Your task to perform on an android device: add a label to a message in the gmail app Image 0: 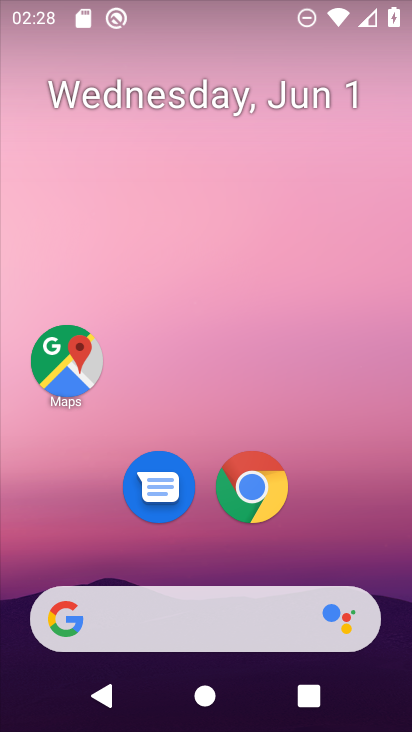
Step 0: drag from (287, 540) to (333, 94)
Your task to perform on an android device: add a label to a message in the gmail app Image 1: 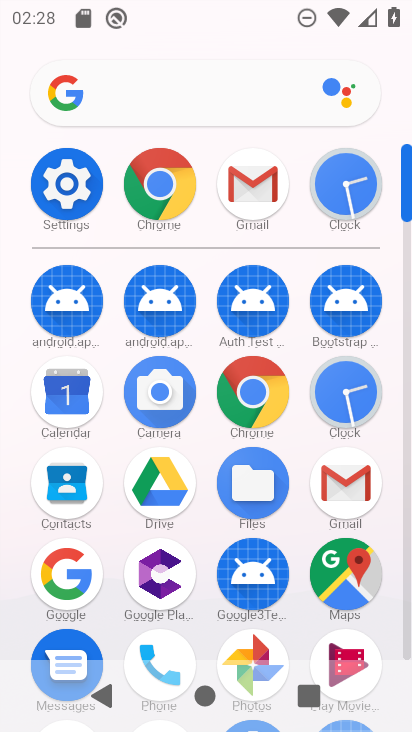
Step 1: click (247, 180)
Your task to perform on an android device: add a label to a message in the gmail app Image 2: 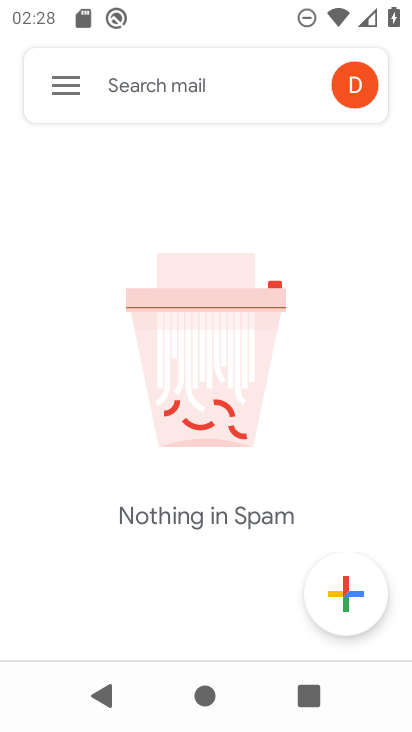
Step 2: click (61, 77)
Your task to perform on an android device: add a label to a message in the gmail app Image 3: 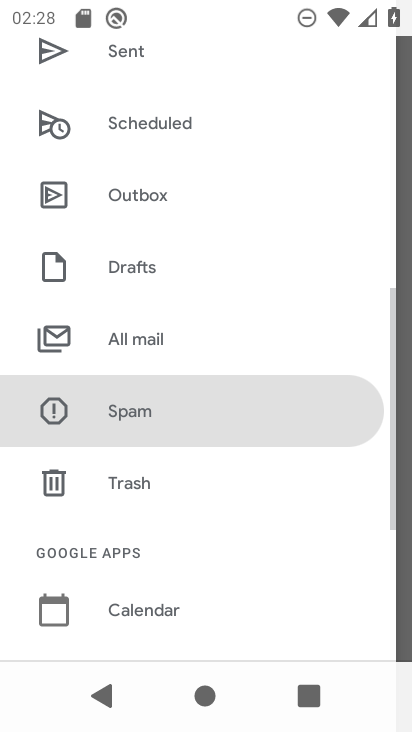
Step 3: drag from (153, 180) to (168, 493)
Your task to perform on an android device: add a label to a message in the gmail app Image 4: 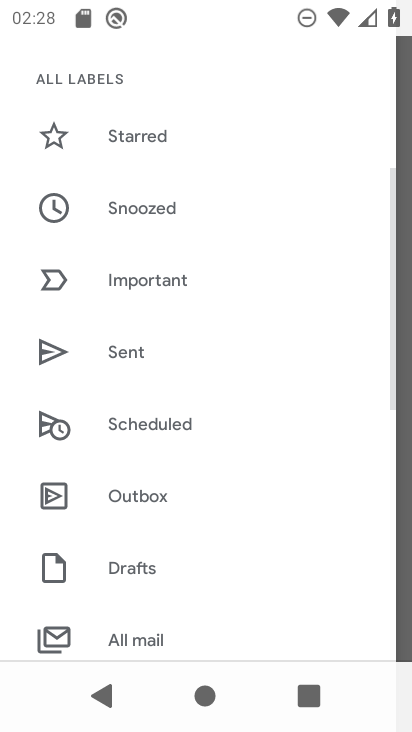
Step 4: drag from (149, 167) to (210, 581)
Your task to perform on an android device: add a label to a message in the gmail app Image 5: 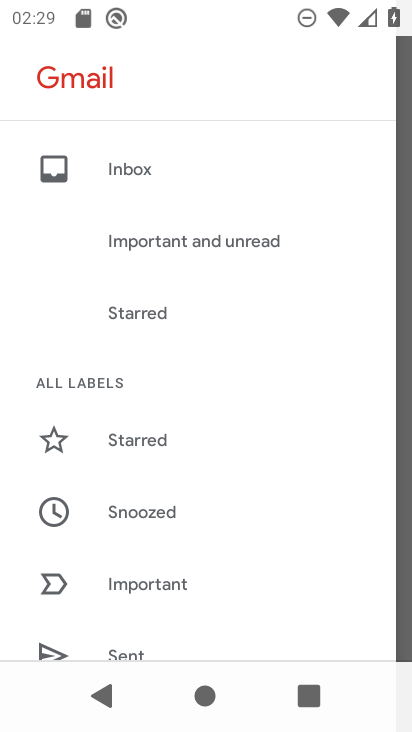
Step 5: drag from (185, 450) to (234, 233)
Your task to perform on an android device: add a label to a message in the gmail app Image 6: 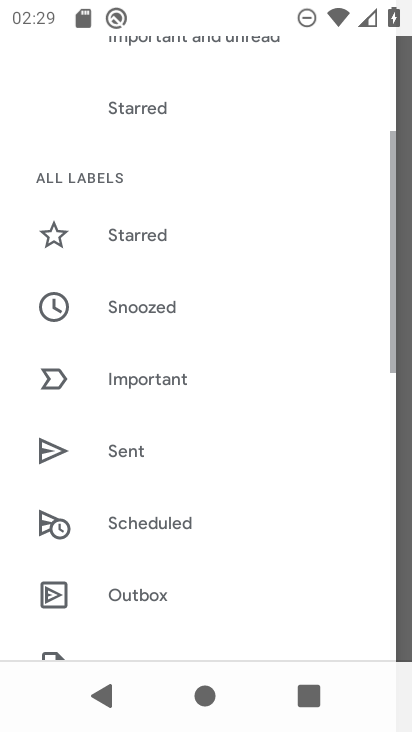
Step 6: drag from (164, 522) to (213, 280)
Your task to perform on an android device: add a label to a message in the gmail app Image 7: 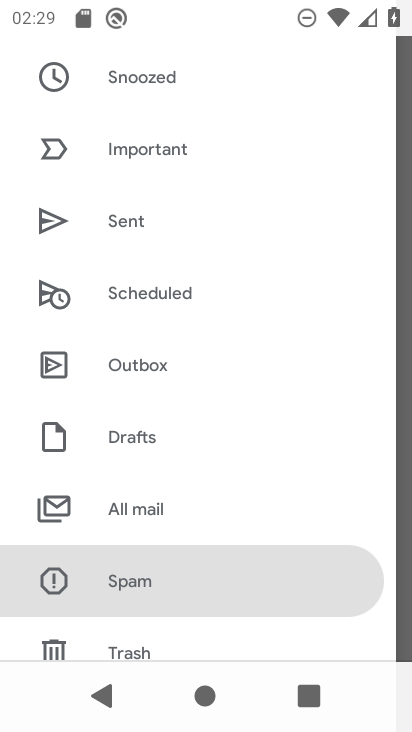
Step 7: click (162, 493)
Your task to perform on an android device: add a label to a message in the gmail app Image 8: 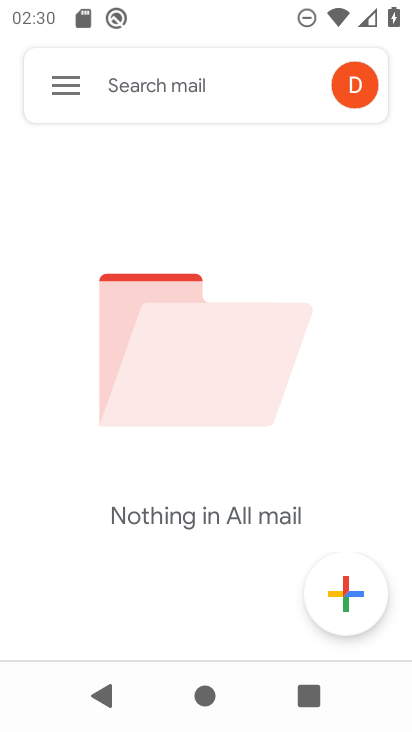
Step 8: task complete